Your task to perform on an android device: Open the calendar app, open the side menu, and click the "Day" option Image 0: 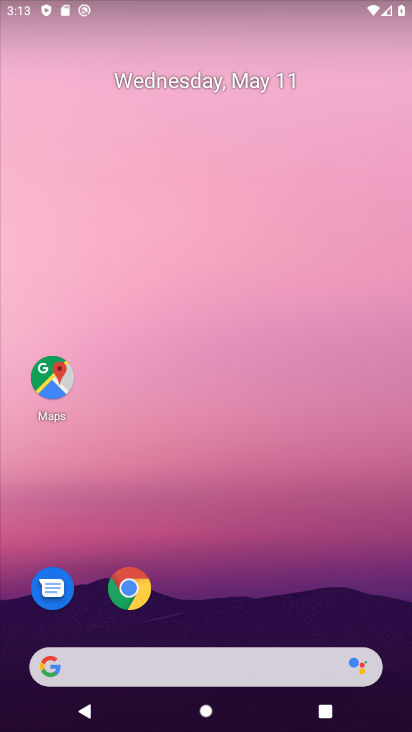
Step 0: drag from (233, 621) to (293, 7)
Your task to perform on an android device: Open the calendar app, open the side menu, and click the "Day" option Image 1: 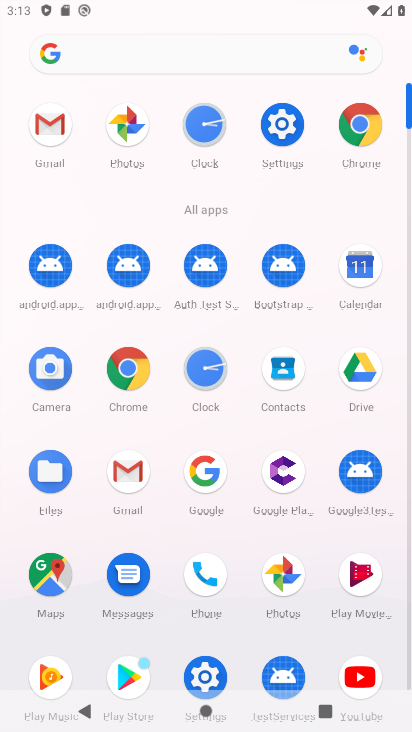
Step 1: click (370, 270)
Your task to perform on an android device: Open the calendar app, open the side menu, and click the "Day" option Image 2: 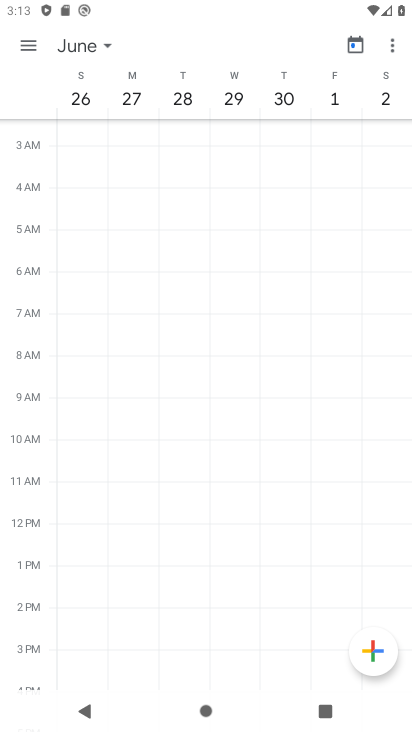
Step 2: click (19, 56)
Your task to perform on an android device: Open the calendar app, open the side menu, and click the "Day" option Image 3: 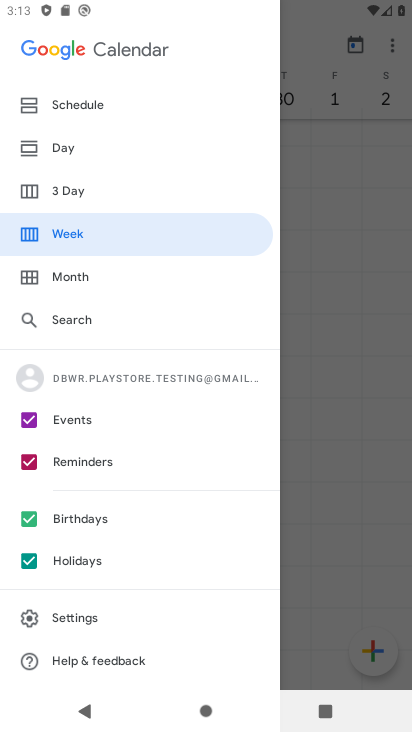
Step 3: click (46, 145)
Your task to perform on an android device: Open the calendar app, open the side menu, and click the "Day" option Image 4: 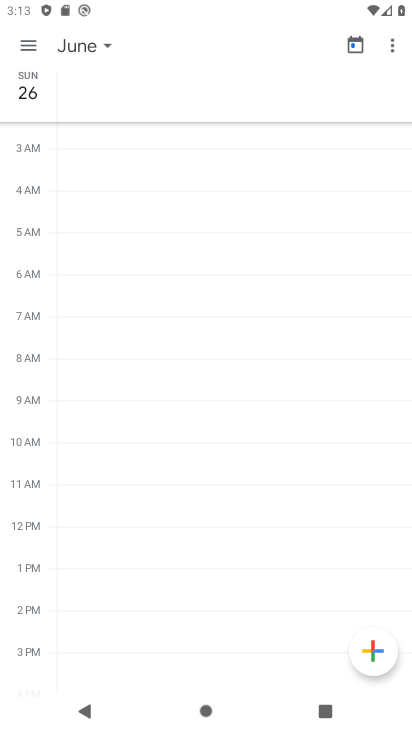
Step 4: task complete